Your task to perform on an android device: change the clock display to digital Image 0: 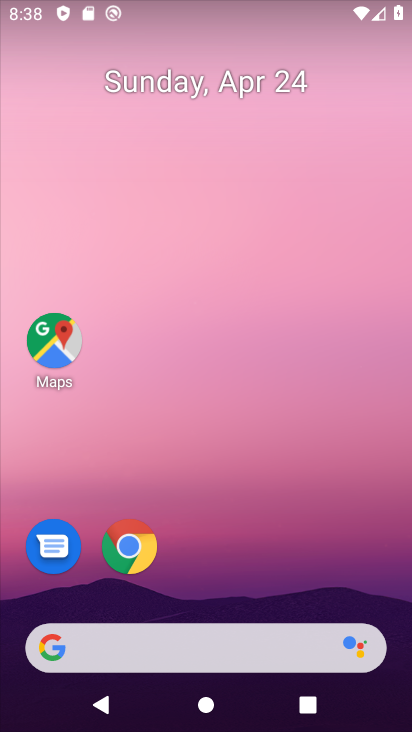
Step 0: drag from (241, 602) to (295, 202)
Your task to perform on an android device: change the clock display to digital Image 1: 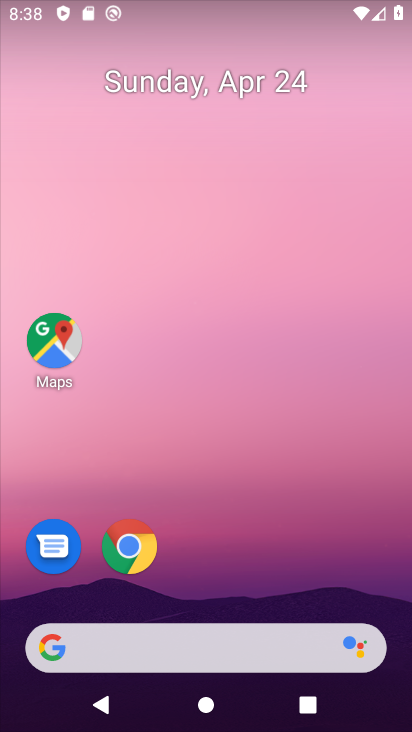
Step 1: drag from (247, 596) to (275, 209)
Your task to perform on an android device: change the clock display to digital Image 2: 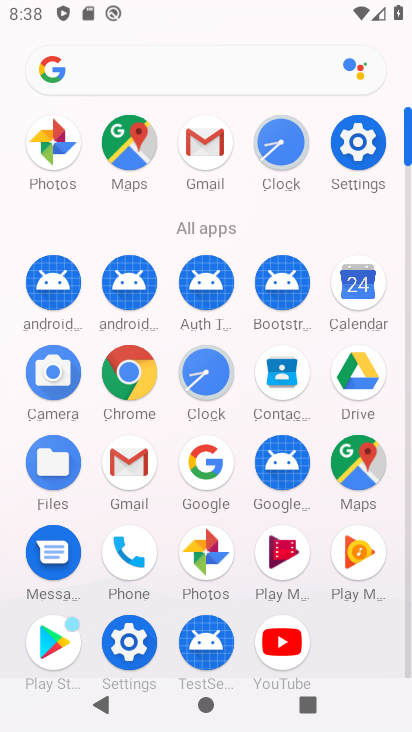
Step 2: click (210, 365)
Your task to perform on an android device: change the clock display to digital Image 3: 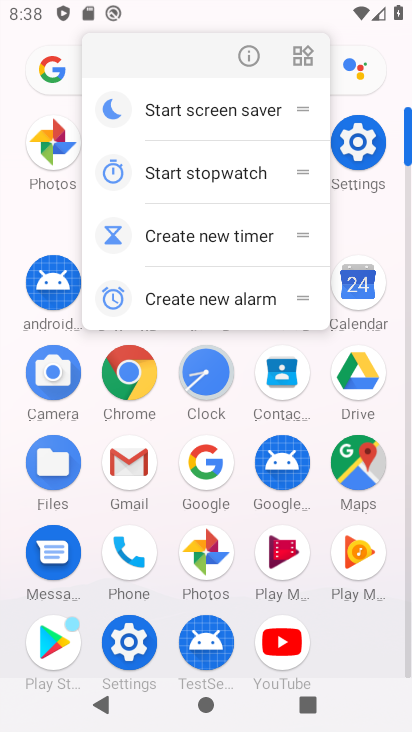
Step 3: click (210, 365)
Your task to perform on an android device: change the clock display to digital Image 4: 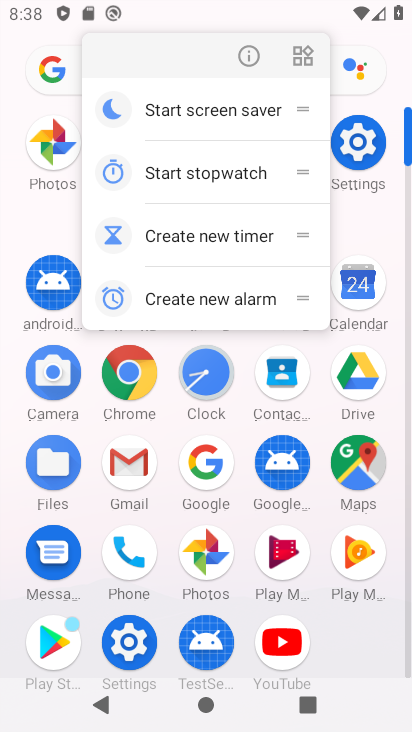
Step 4: click (203, 376)
Your task to perform on an android device: change the clock display to digital Image 5: 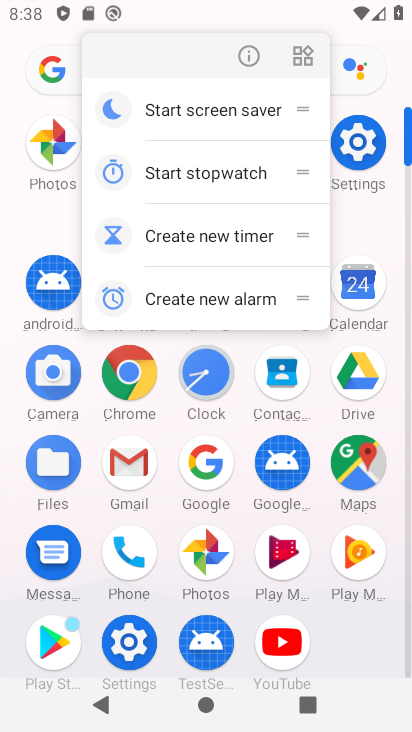
Step 5: click (204, 369)
Your task to perform on an android device: change the clock display to digital Image 6: 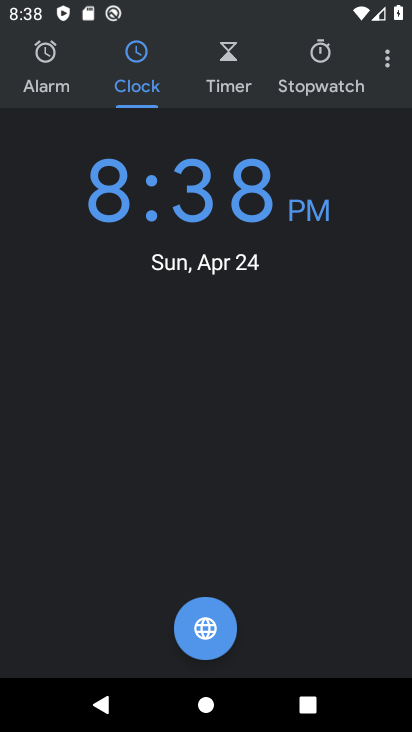
Step 6: click (383, 63)
Your task to perform on an android device: change the clock display to digital Image 7: 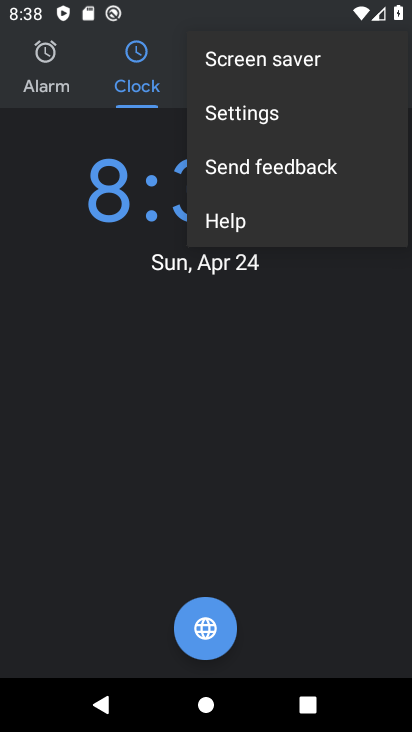
Step 7: click (268, 115)
Your task to perform on an android device: change the clock display to digital Image 8: 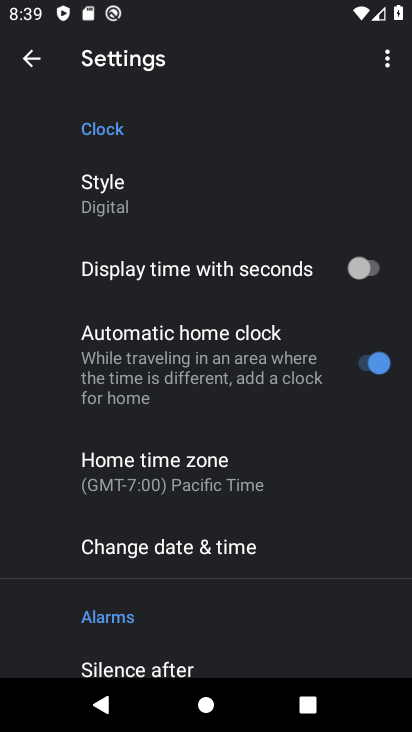
Step 8: drag from (378, 266) to (199, 134)
Your task to perform on an android device: change the clock display to digital Image 9: 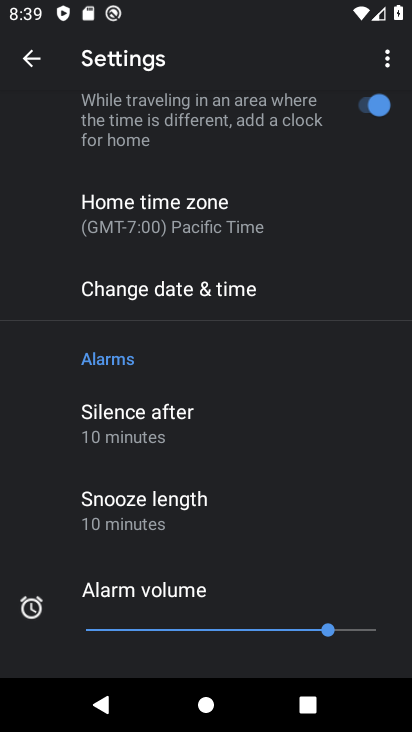
Step 9: drag from (241, 170) to (228, 611)
Your task to perform on an android device: change the clock display to digital Image 10: 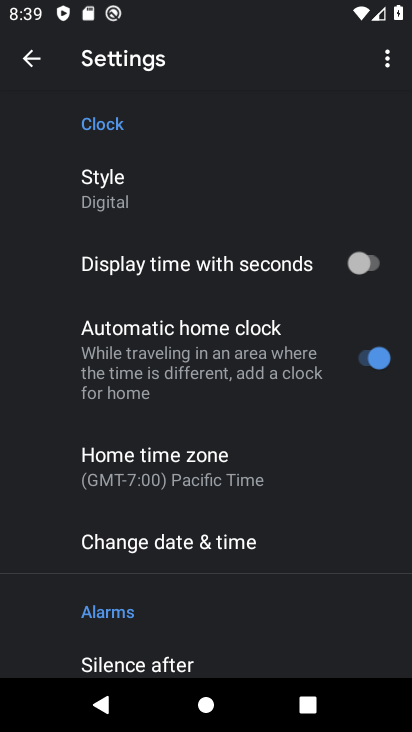
Step 10: click (125, 193)
Your task to perform on an android device: change the clock display to digital Image 11: 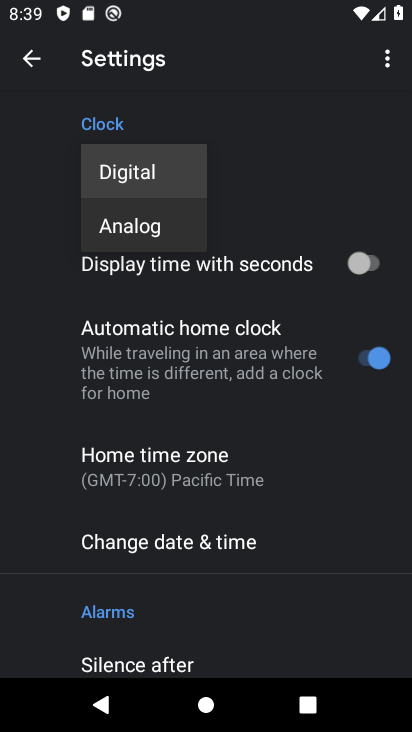
Step 11: click (146, 173)
Your task to perform on an android device: change the clock display to digital Image 12: 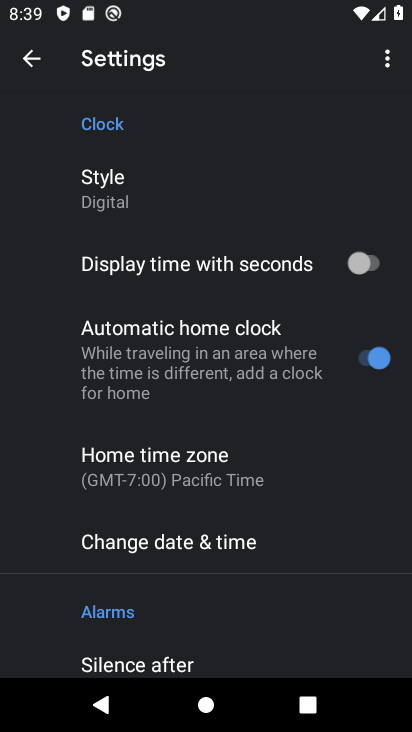
Step 12: task complete